Your task to perform on an android device: Go to network settings Image 0: 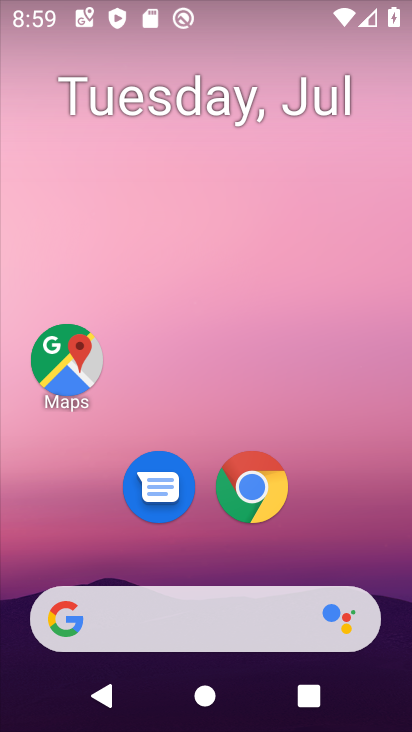
Step 0: drag from (236, 549) to (294, 10)
Your task to perform on an android device: Go to network settings Image 1: 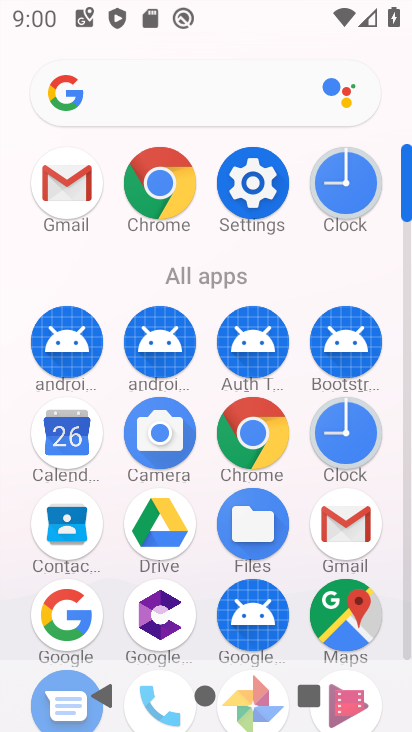
Step 1: click (260, 200)
Your task to perform on an android device: Go to network settings Image 2: 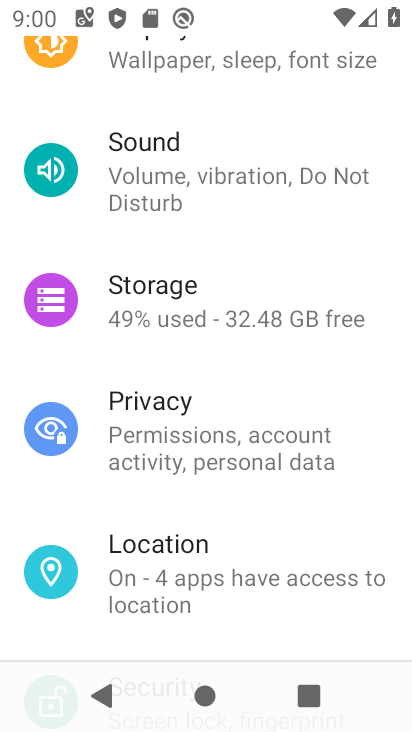
Step 2: drag from (260, 132) to (181, 717)
Your task to perform on an android device: Go to network settings Image 3: 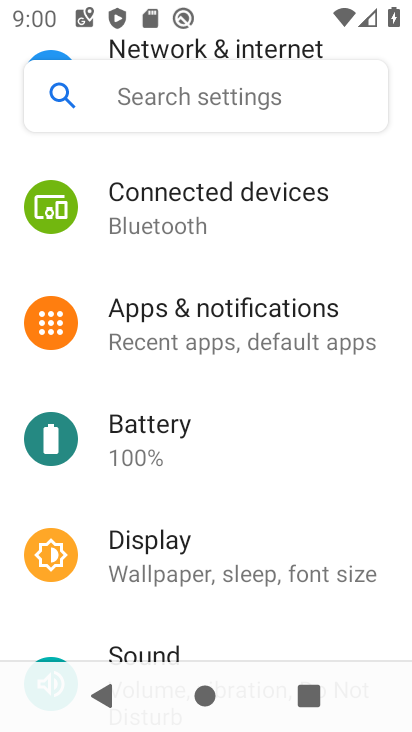
Step 3: drag from (215, 239) to (178, 702)
Your task to perform on an android device: Go to network settings Image 4: 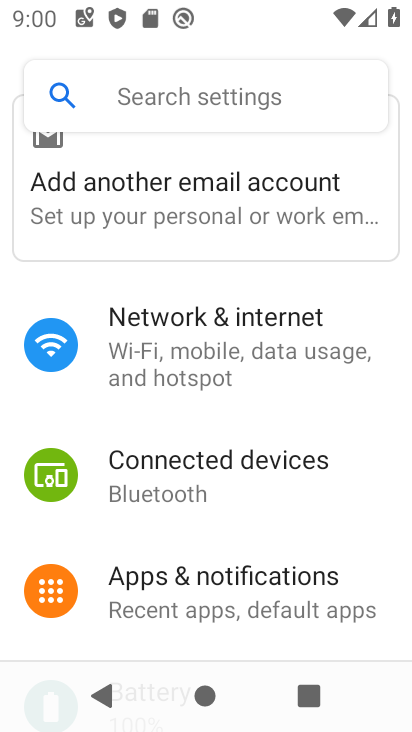
Step 4: click (188, 347)
Your task to perform on an android device: Go to network settings Image 5: 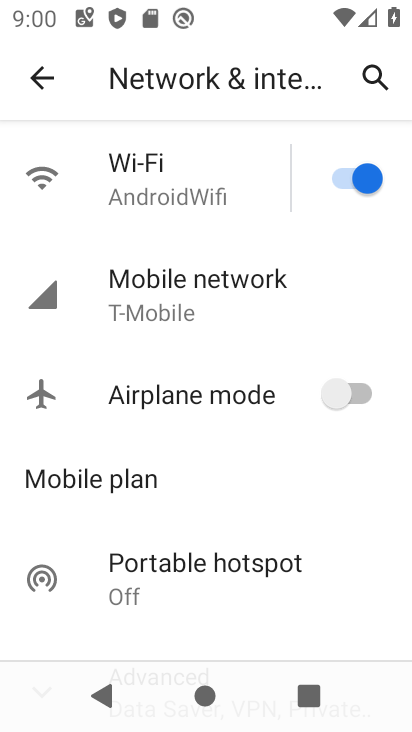
Step 5: task complete